Your task to perform on an android device: Open Android settings Image 0: 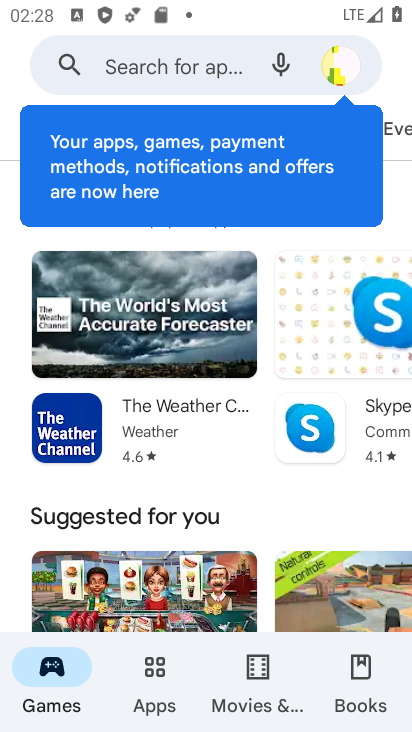
Step 0: press home button
Your task to perform on an android device: Open Android settings Image 1: 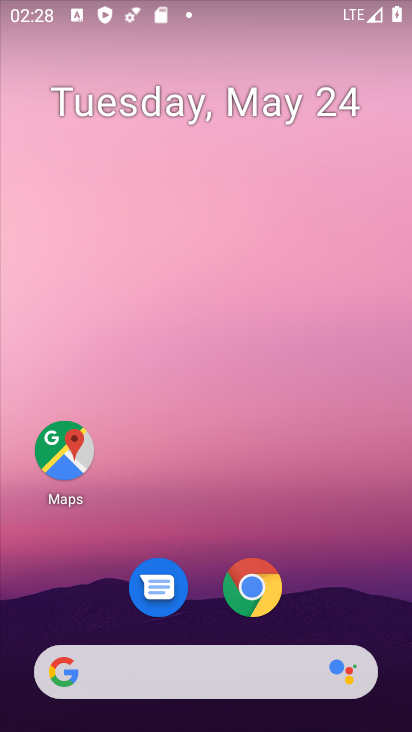
Step 1: drag from (183, 731) to (227, 229)
Your task to perform on an android device: Open Android settings Image 2: 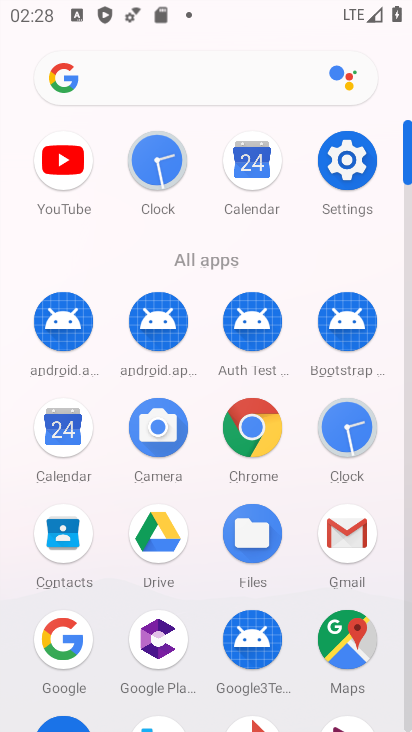
Step 2: click (368, 163)
Your task to perform on an android device: Open Android settings Image 3: 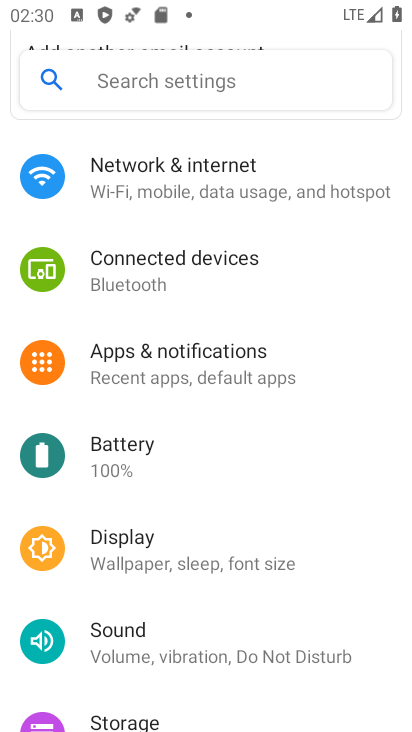
Step 3: task complete